Your task to perform on an android device: turn pop-ups on in chrome Image 0: 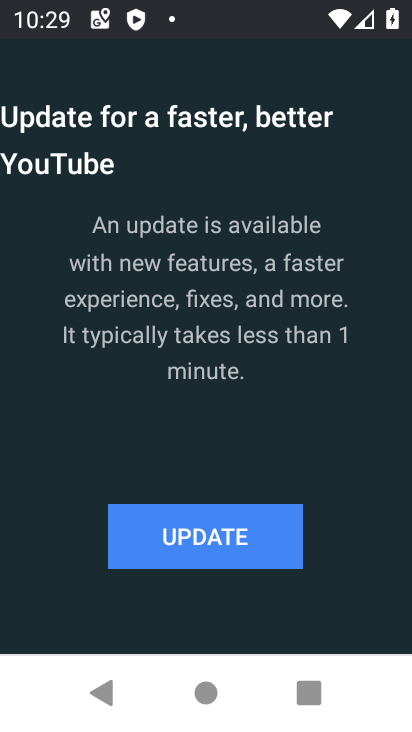
Step 0: press back button
Your task to perform on an android device: turn pop-ups on in chrome Image 1: 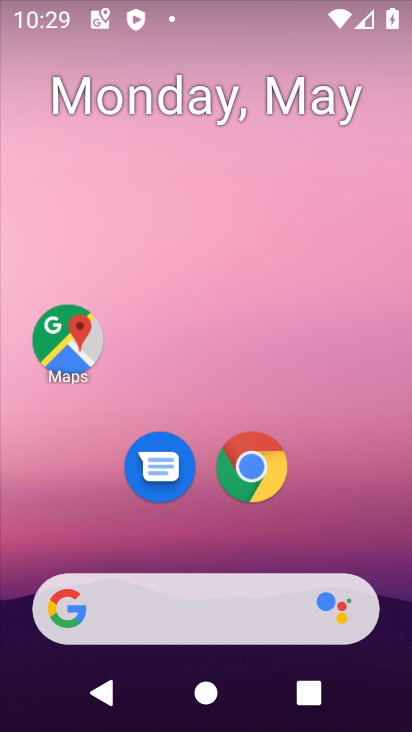
Step 1: click (259, 467)
Your task to perform on an android device: turn pop-ups on in chrome Image 2: 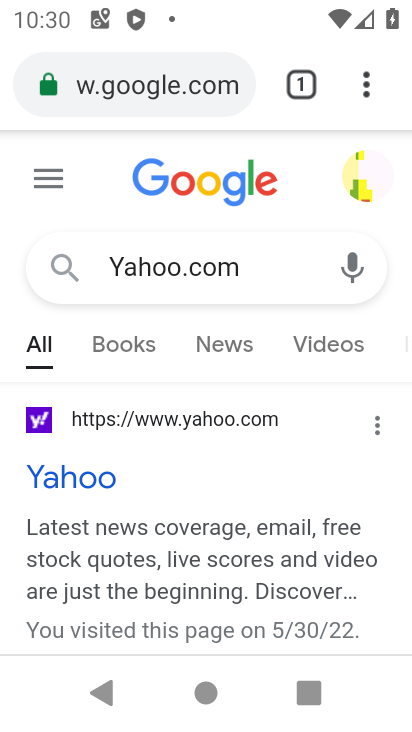
Step 2: click (368, 83)
Your task to perform on an android device: turn pop-ups on in chrome Image 3: 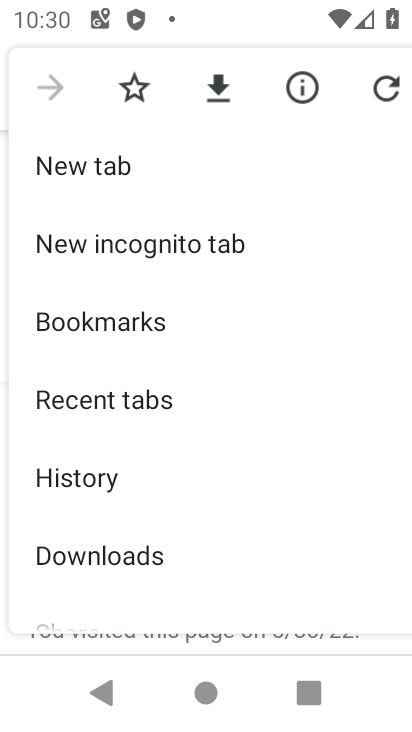
Step 3: drag from (270, 550) to (266, 216)
Your task to perform on an android device: turn pop-ups on in chrome Image 4: 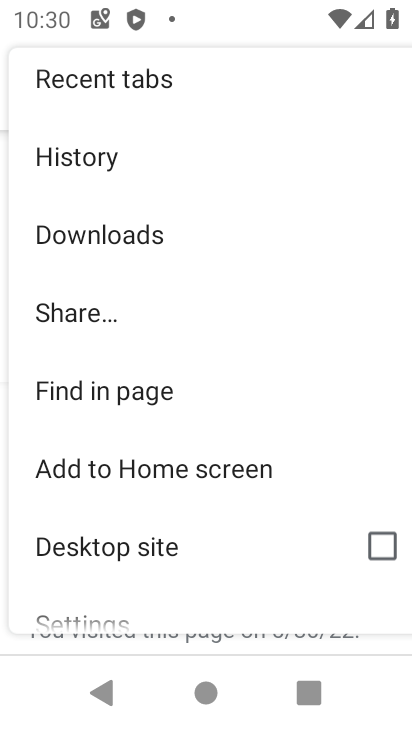
Step 4: drag from (266, 592) to (267, 226)
Your task to perform on an android device: turn pop-ups on in chrome Image 5: 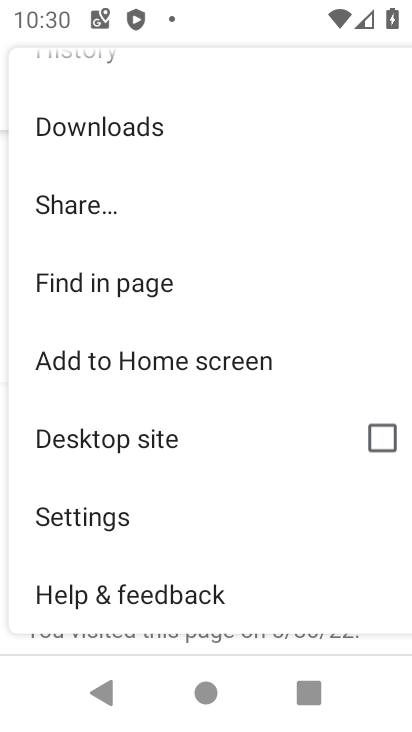
Step 5: click (85, 510)
Your task to perform on an android device: turn pop-ups on in chrome Image 6: 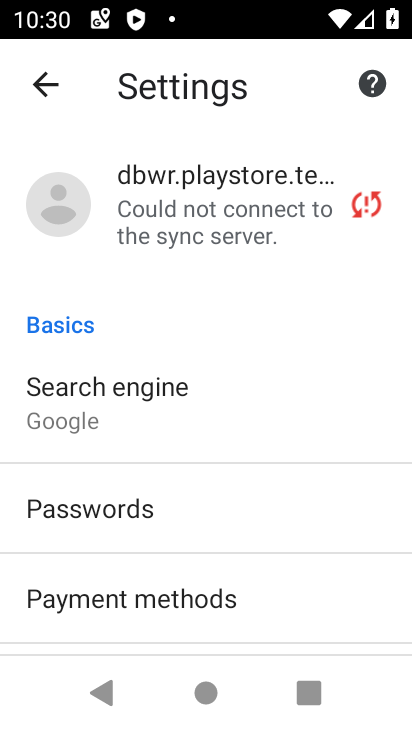
Step 6: drag from (289, 561) to (296, 253)
Your task to perform on an android device: turn pop-ups on in chrome Image 7: 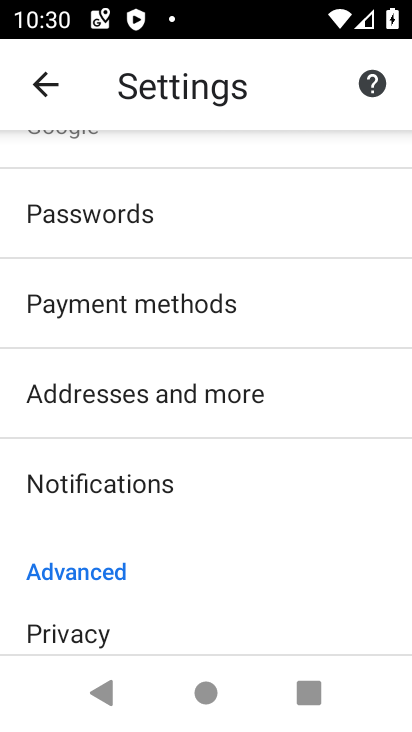
Step 7: drag from (276, 620) to (313, 310)
Your task to perform on an android device: turn pop-ups on in chrome Image 8: 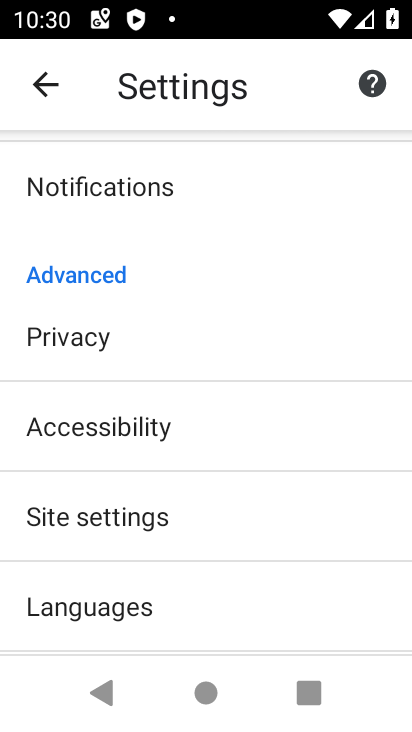
Step 8: drag from (290, 620) to (275, 312)
Your task to perform on an android device: turn pop-ups on in chrome Image 9: 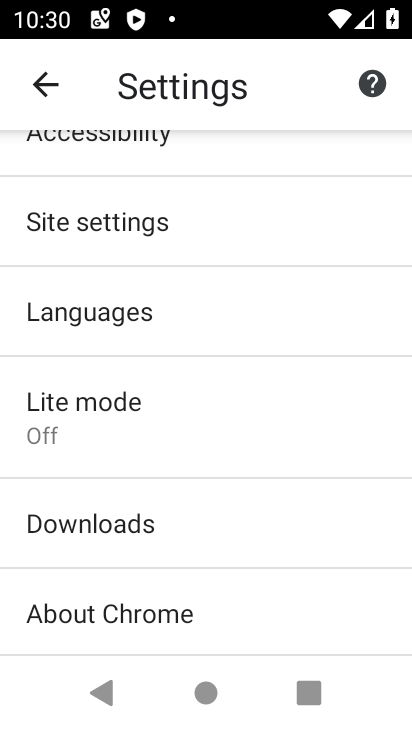
Step 9: drag from (246, 609) to (252, 268)
Your task to perform on an android device: turn pop-ups on in chrome Image 10: 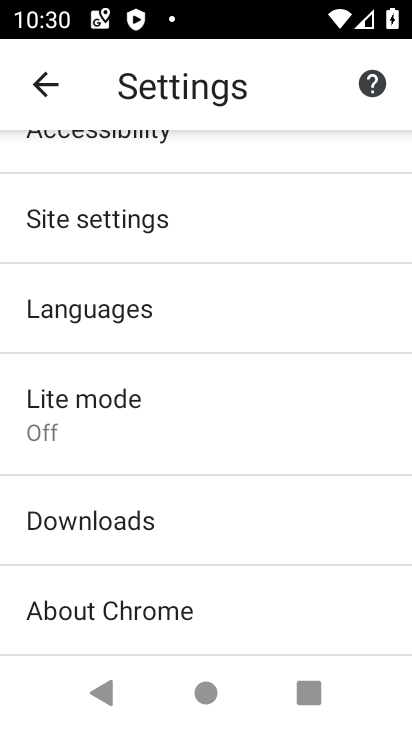
Step 10: drag from (250, 594) to (275, 188)
Your task to perform on an android device: turn pop-ups on in chrome Image 11: 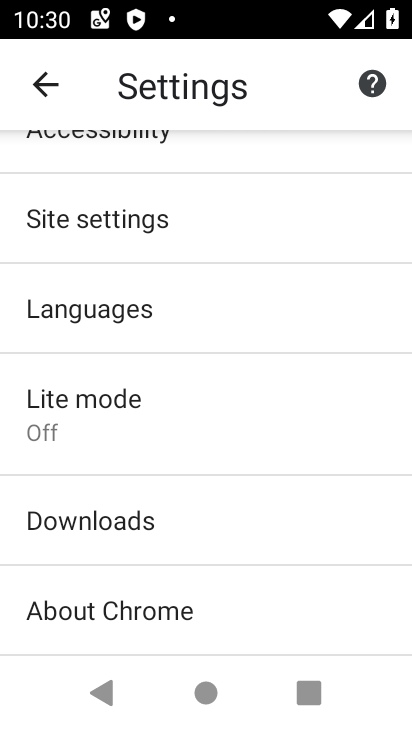
Step 11: click (82, 215)
Your task to perform on an android device: turn pop-ups on in chrome Image 12: 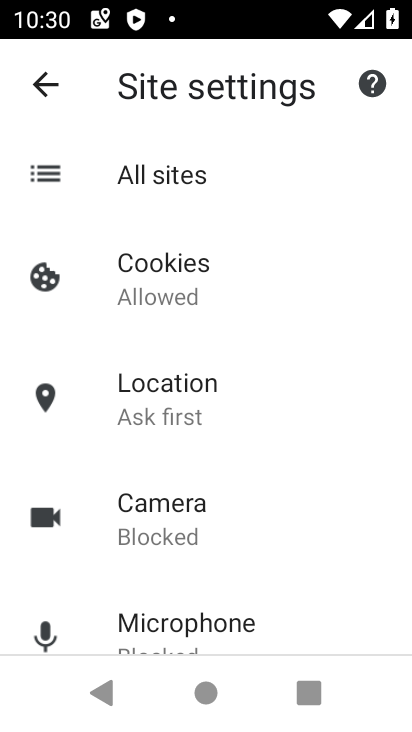
Step 12: drag from (290, 621) to (297, 254)
Your task to perform on an android device: turn pop-ups on in chrome Image 13: 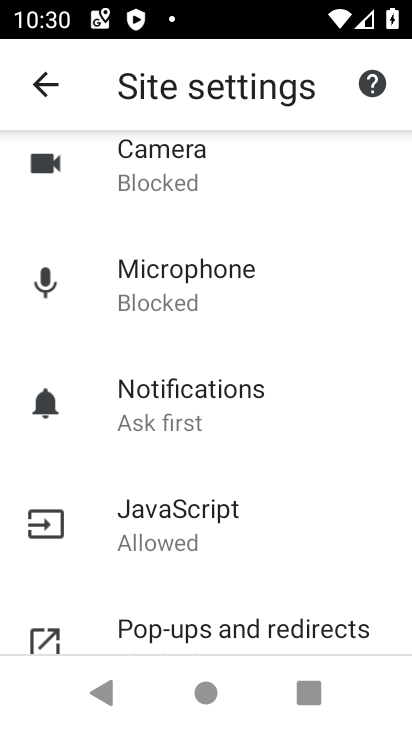
Step 13: drag from (300, 573) to (299, 313)
Your task to perform on an android device: turn pop-ups on in chrome Image 14: 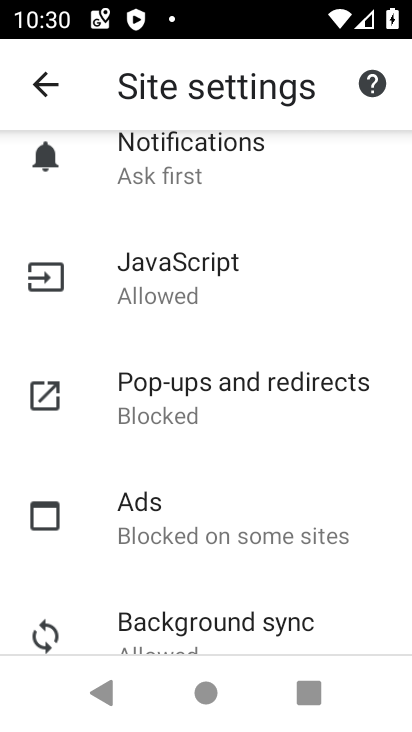
Step 14: click (151, 387)
Your task to perform on an android device: turn pop-ups on in chrome Image 15: 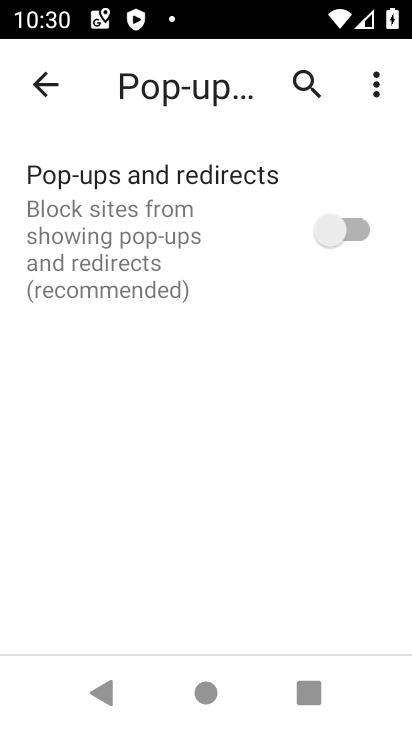
Step 15: click (354, 233)
Your task to perform on an android device: turn pop-ups on in chrome Image 16: 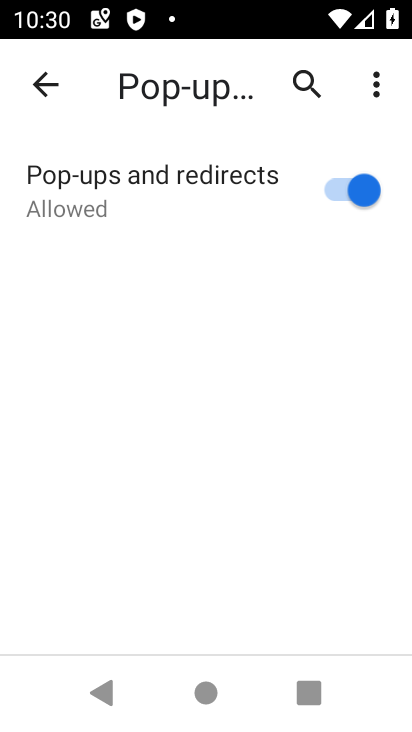
Step 16: task complete